Your task to perform on an android device: Open the web browser Image 0: 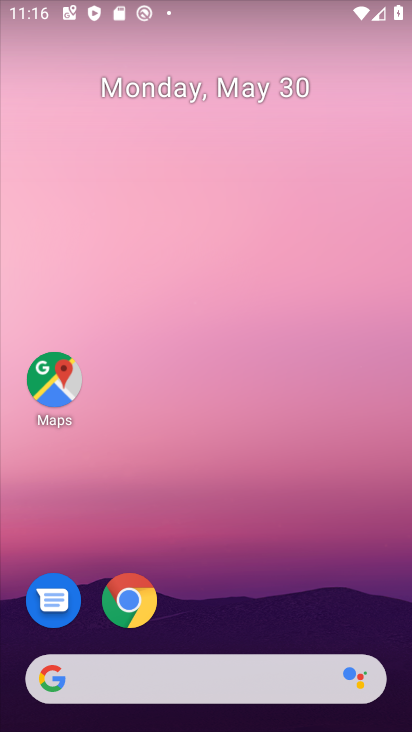
Step 0: click (128, 607)
Your task to perform on an android device: Open the web browser Image 1: 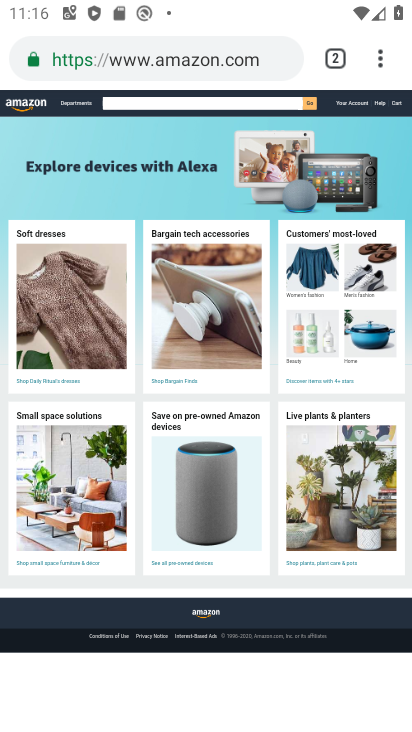
Step 1: task complete